Your task to perform on an android device: Go to Reddit.com Image 0: 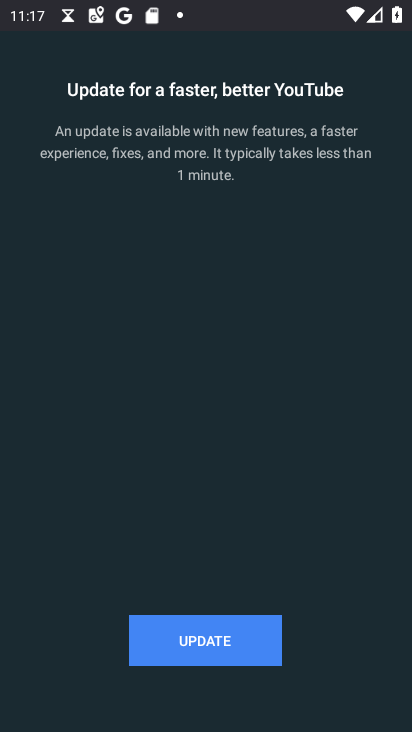
Step 0: press home button
Your task to perform on an android device: Go to Reddit.com Image 1: 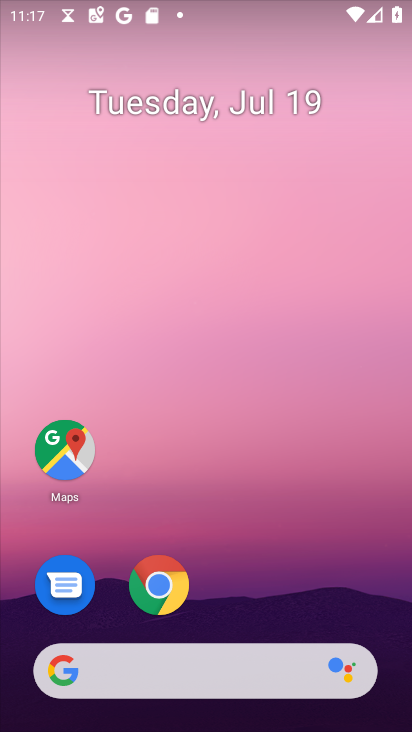
Step 1: click (161, 572)
Your task to perform on an android device: Go to Reddit.com Image 2: 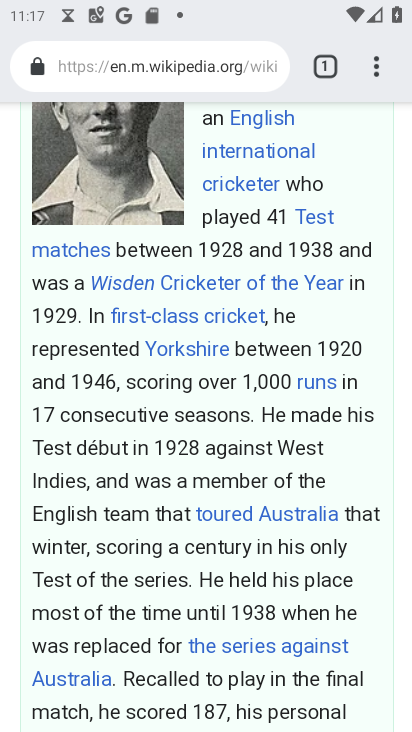
Step 2: drag from (374, 72) to (263, 132)
Your task to perform on an android device: Go to Reddit.com Image 3: 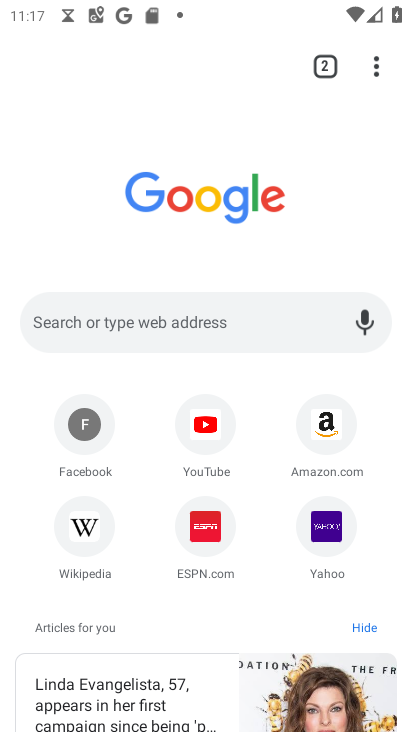
Step 3: click (104, 319)
Your task to perform on an android device: Go to Reddit.com Image 4: 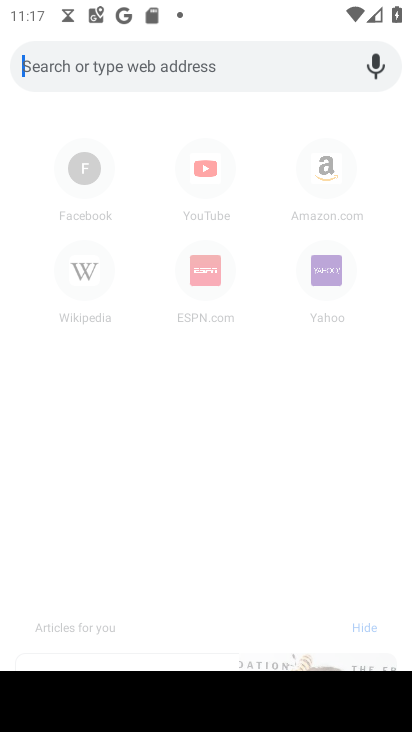
Step 4: type "reddit.com"
Your task to perform on an android device: Go to Reddit.com Image 5: 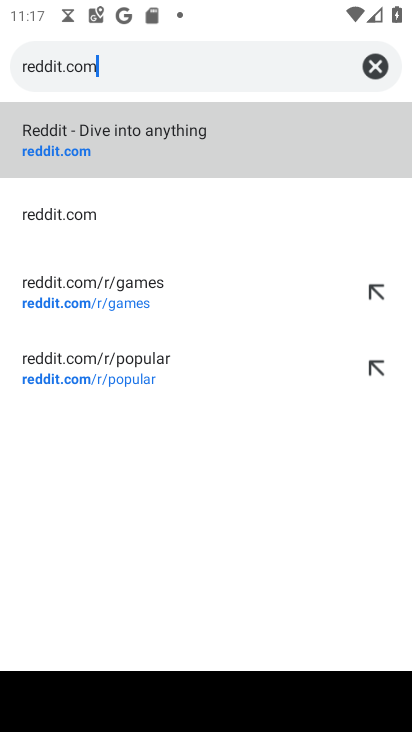
Step 5: click (119, 144)
Your task to perform on an android device: Go to Reddit.com Image 6: 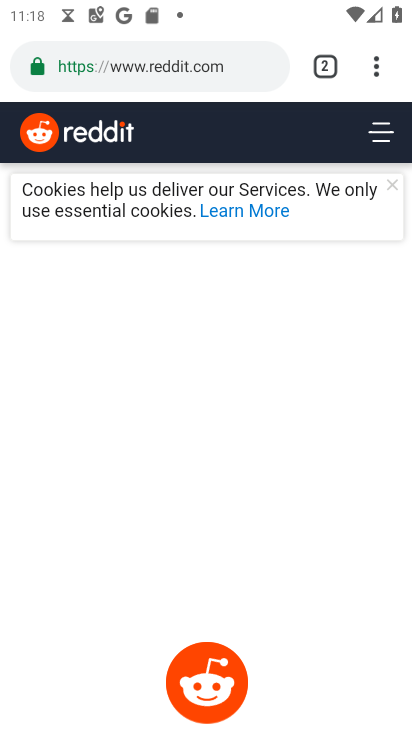
Step 6: task complete